Your task to perform on an android device: Open Android settings Image 0: 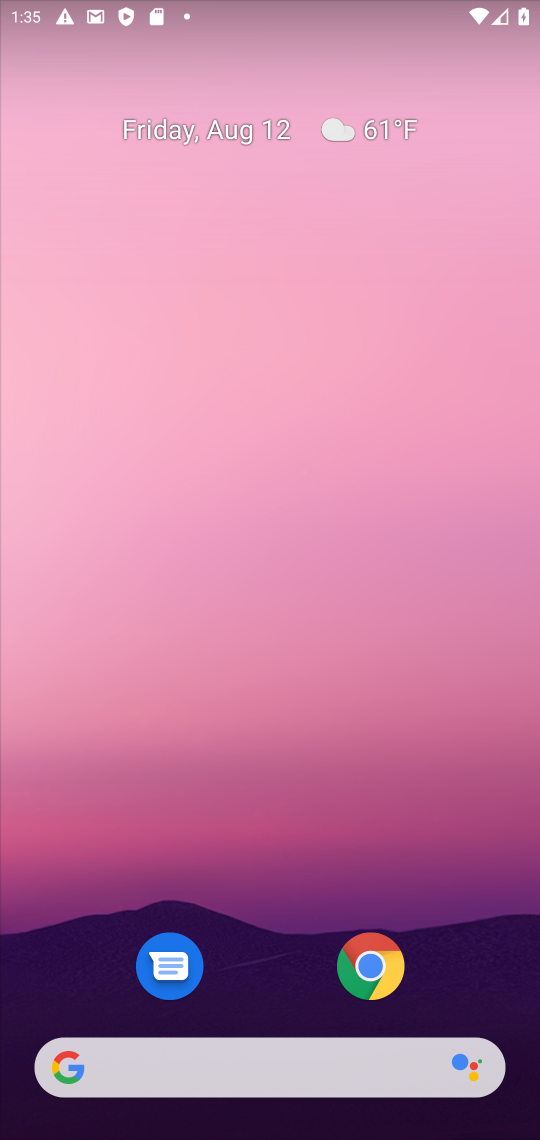
Step 0: drag from (289, 733) to (389, 42)
Your task to perform on an android device: Open Android settings Image 1: 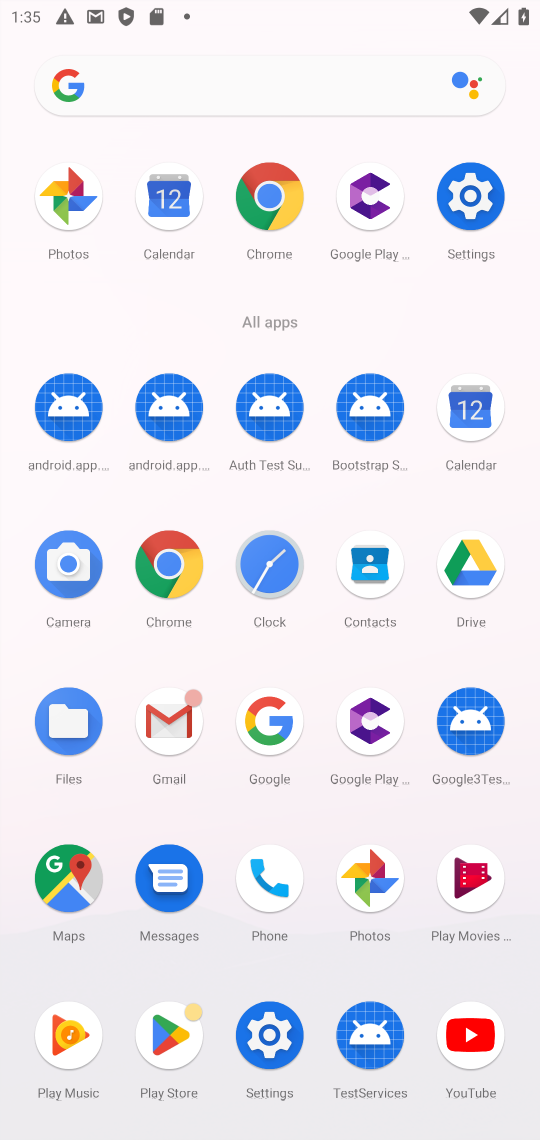
Step 1: click (278, 1049)
Your task to perform on an android device: Open Android settings Image 2: 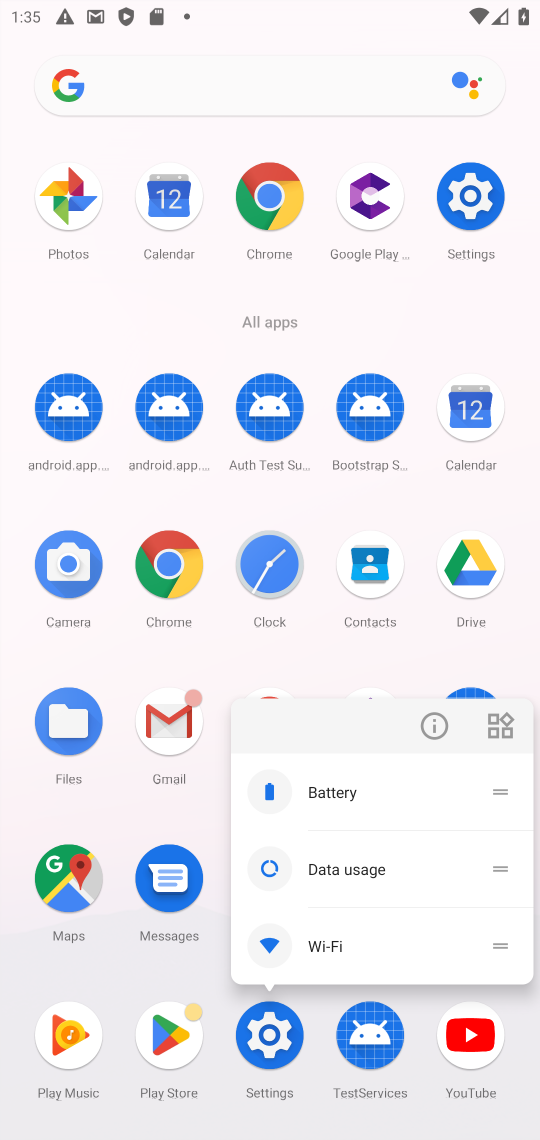
Step 2: click (275, 1034)
Your task to perform on an android device: Open Android settings Image 3: 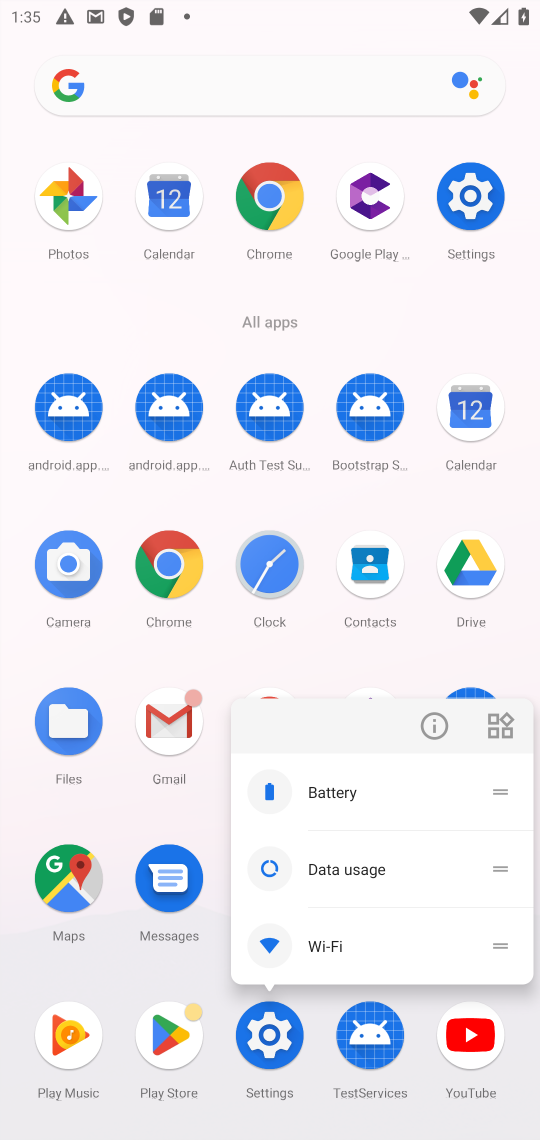
Step 3: click (273, 1037)
Your task to perform on an android device: Open Android settings Image 4: 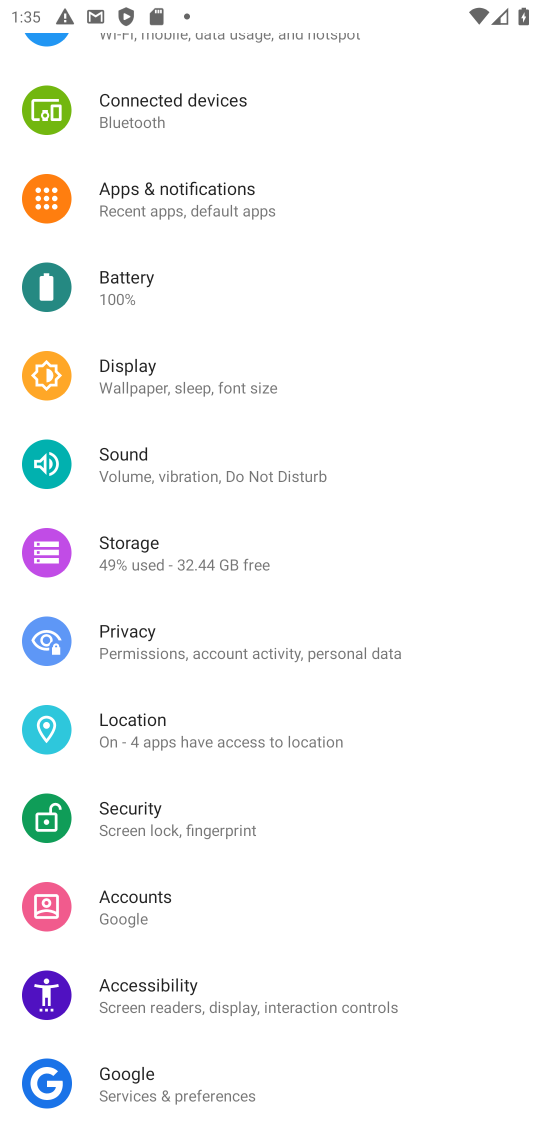
Step 4: task complete